Your task to perform on an android device: toggle pop-ups in chrome Image 0: 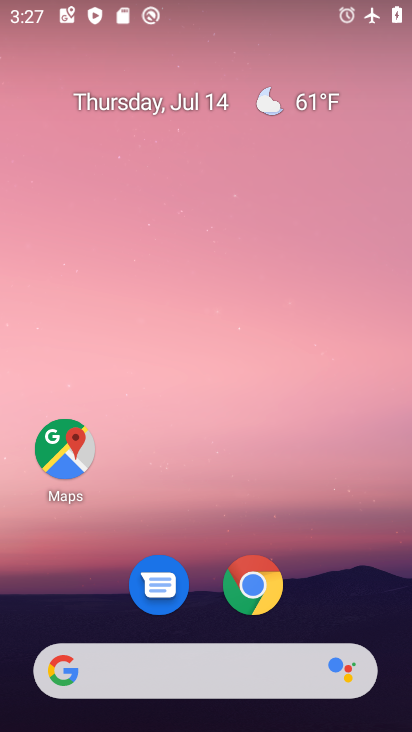
Step 0: click (272, 583)
Your task to perform on an android device: toggle pop-ups in chrome Image 1: 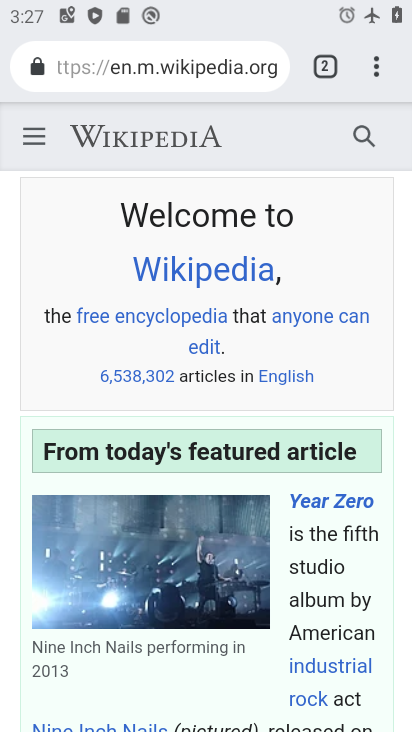
Step 1: click (373, 69)
Your task to perform on an android device: toggle pop-ups in chrome Image 2: 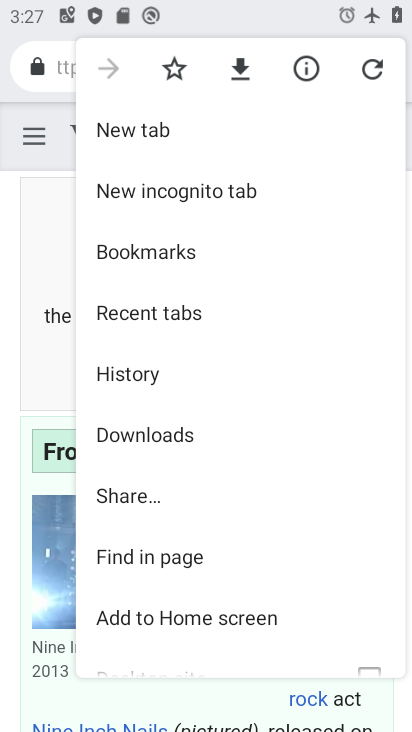
Step 2: drag from (230, 517) to (252, 224)
Your task to perform on an android device: toggle pop-ups in chrome Image 3: 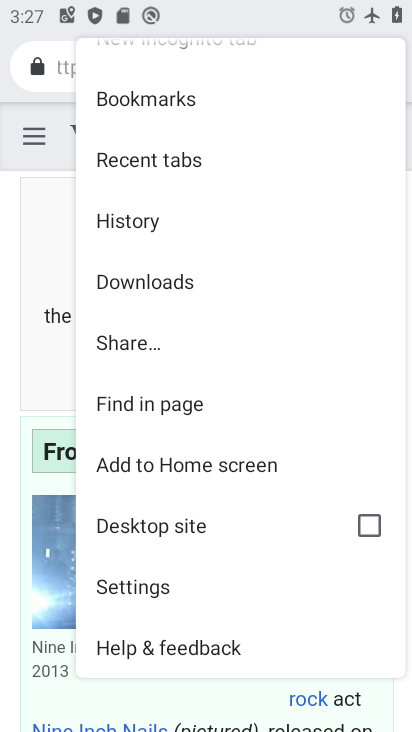
Step 3: click (159, 578)
Your task to perform on an android device: toggle pop-ups in chrome Image 4: 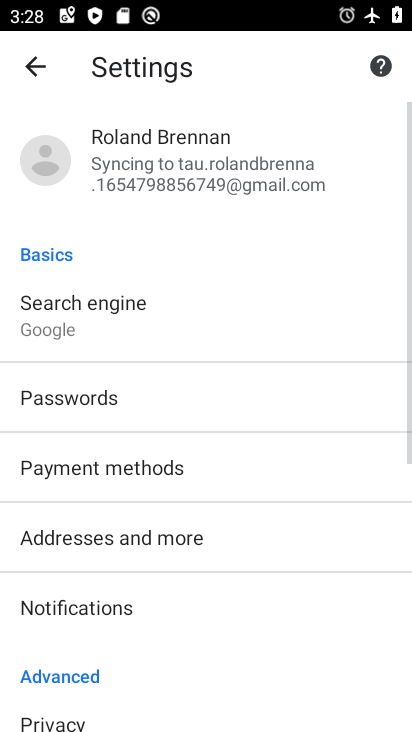
Step 4: drag from (243, 569) to (238, 355)
Your task to perform on an android device: toggle pop-ups in chrome Image 5: 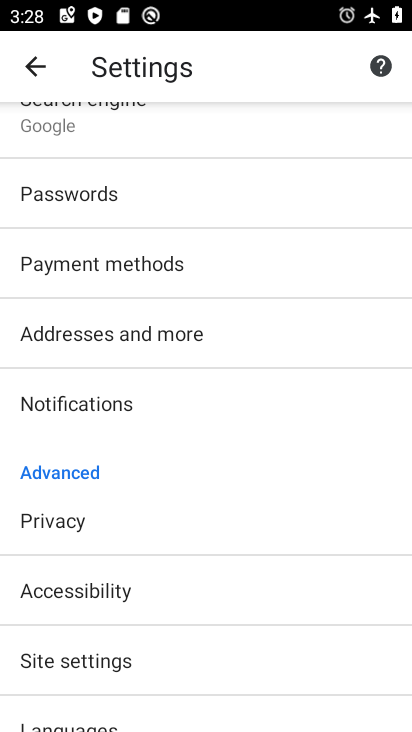
Step 5: click (111, 666)
Your task to perform on an android device: toggle pop-ups in chrome Image 6: 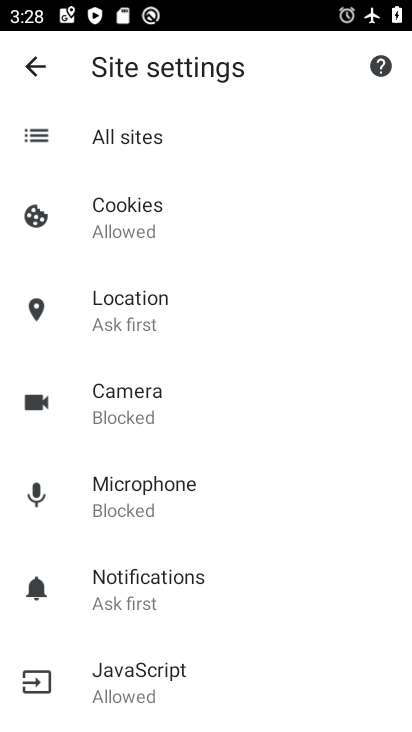
Step 6: drag from (218, 478) to (233, 305)
Your task to perform on an android device: toggle pop-ups in chrome Image 7: 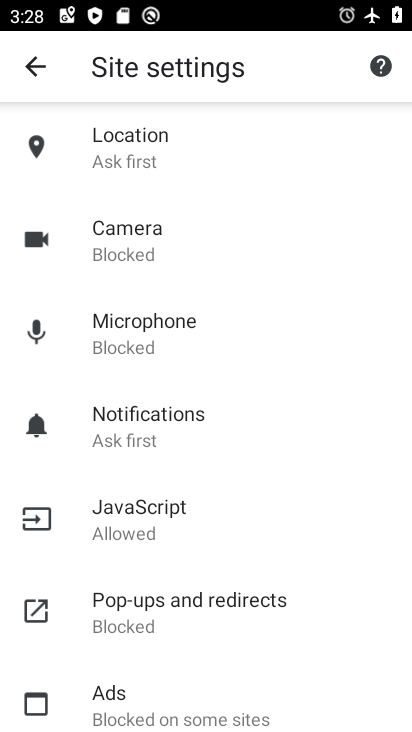
Step 7: click (201, 611)
Your task to perform on an android device: toggle pop-ups in chrome Image 8: 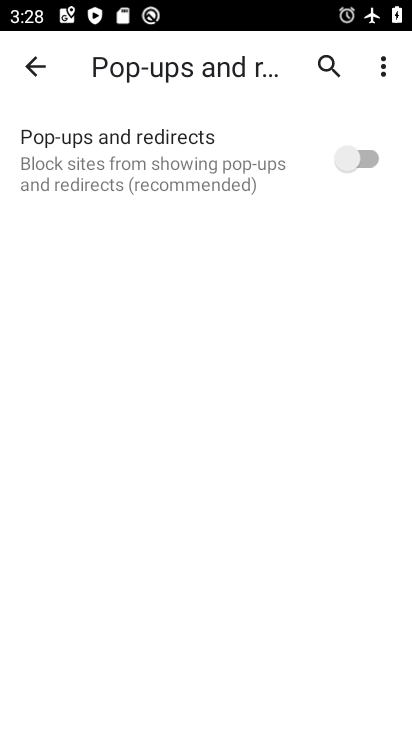
Step 8: click (355, 157)
Your task to perform on an android device: toggle pop-ups in chrome Image 9: 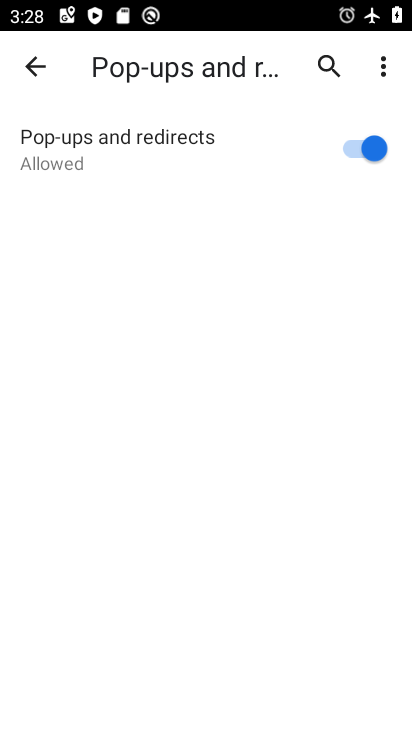
Step 9: task complete